Your task to perform on an android device: turn off location Image 0: 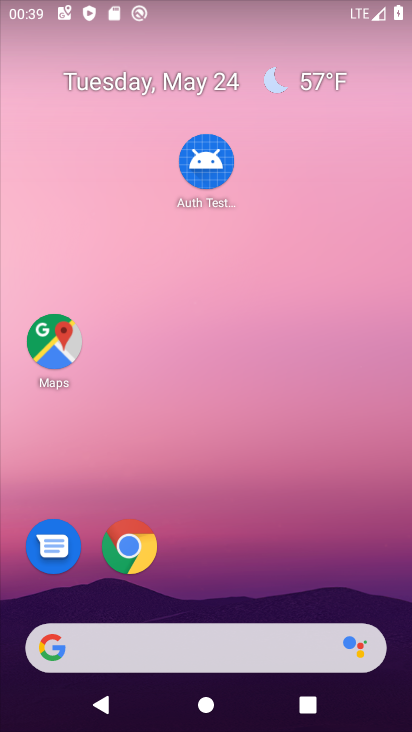
Step 0: drag from (208, 611) to (272, 46)
Your task to perform on an android device: turn off location Image 1: 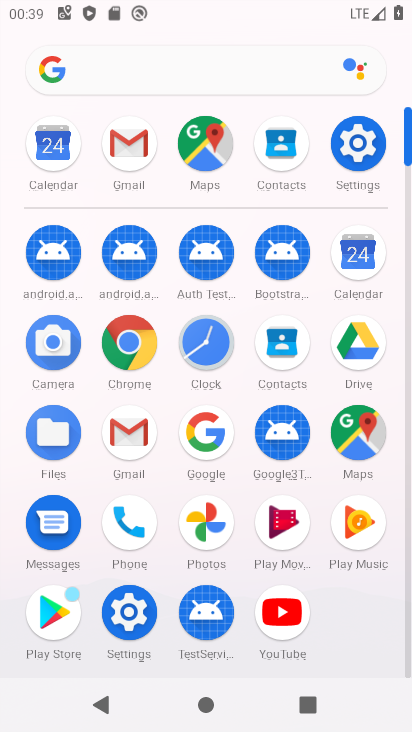
Step 1: click (355, 146)
Your task to perform on an android device: turn off location Image 2: 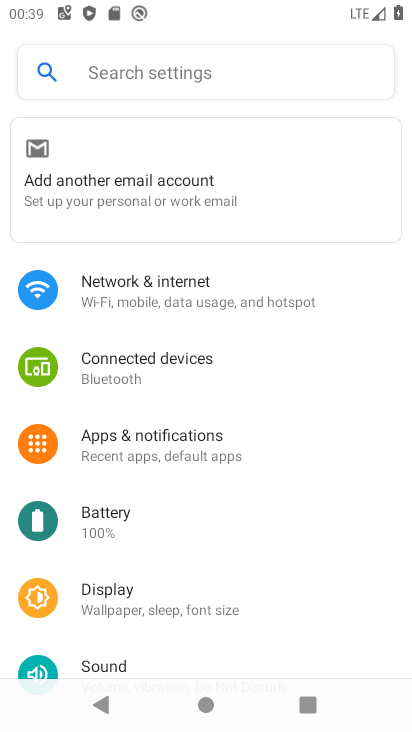
Step 2: drag from (180, 620) to (280, 88)
Your task to perform on an android device: turn off location Image 3: 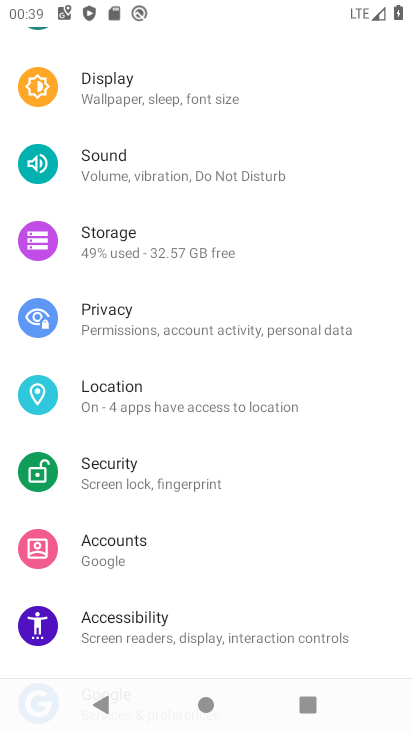
Step 3: click (142, 410)
Your task to perform on an android device: turn off location Image 4: 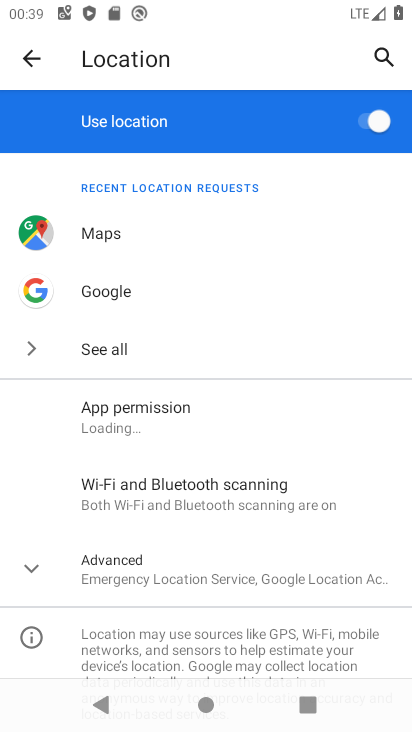
Step 4: drag from (222, 524) to (261, 289)
Your task to perform on an android device: turn off location Image 5: 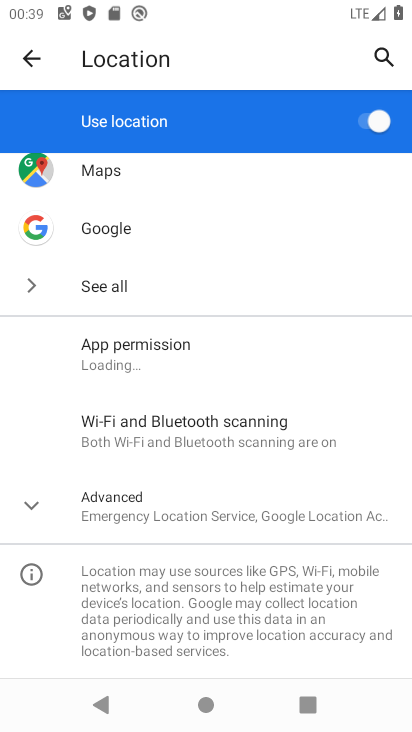
Step 5: click (379, 122)
Your task to perform on an android device: turn off location Image 6: 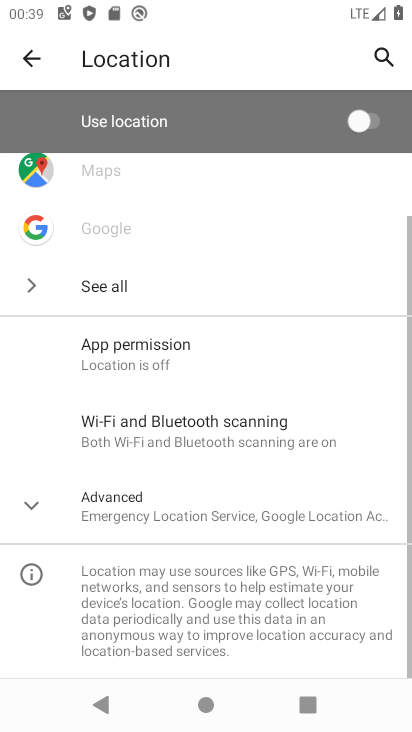
Step 6: task complete